Your task to perform on an android device: toggle sleep mode Image 0: 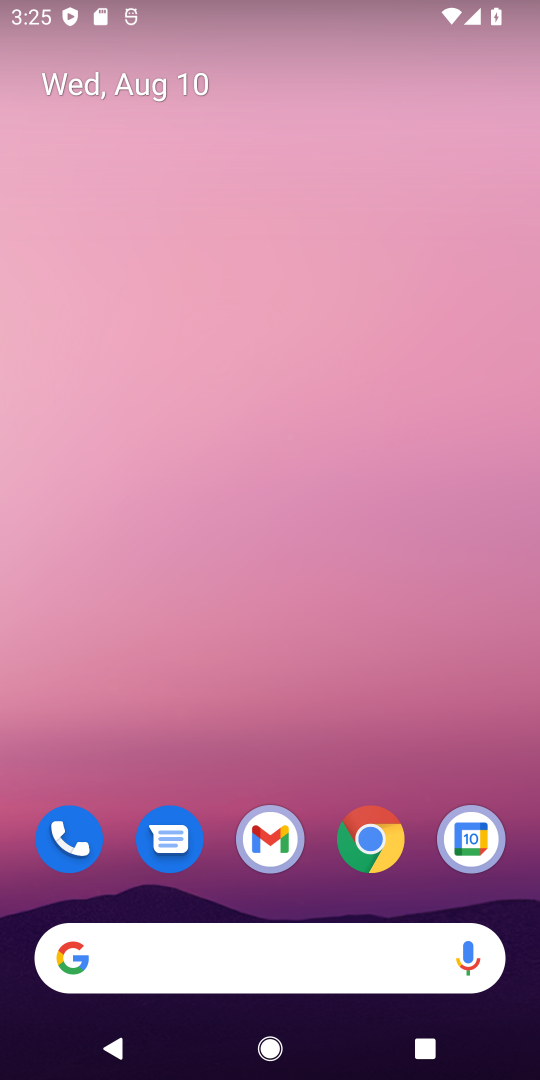
Step 0: drag from (302, 740) to (332, 0)
Your task to perform on an android device: toggle sleep mode Image 1: 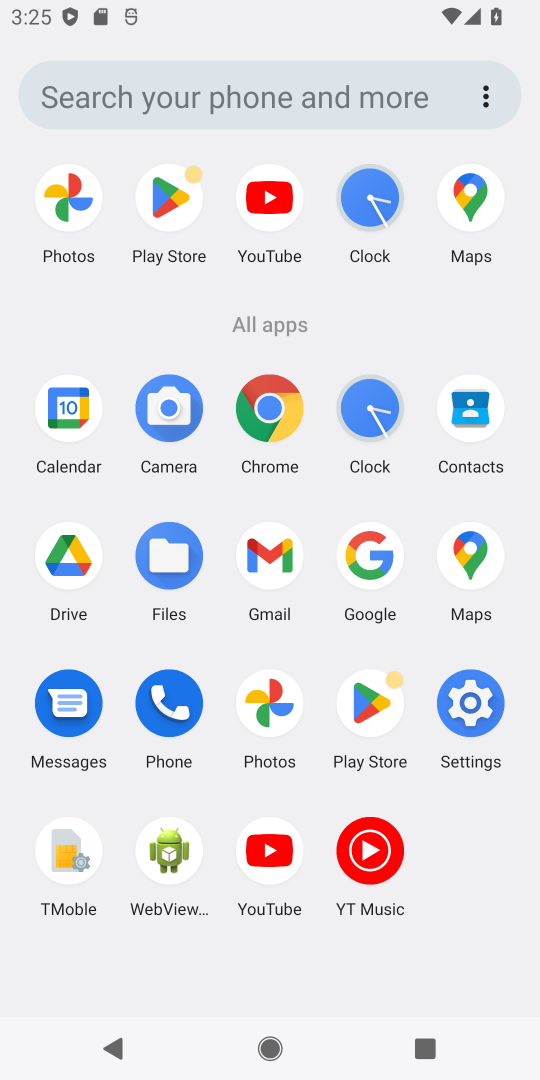
Step 1: click (466, 702)
Your task to perform on an android device: toggle sleep mode Image 2: 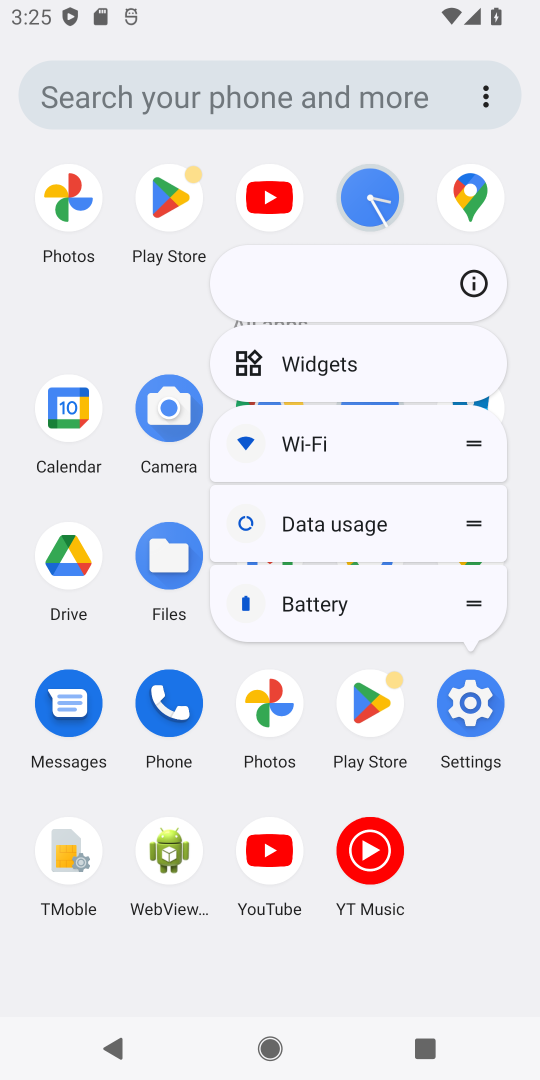
Step 2: click (466, 702)
Your task to perform on an android device: toggle sleep mode Image 3: 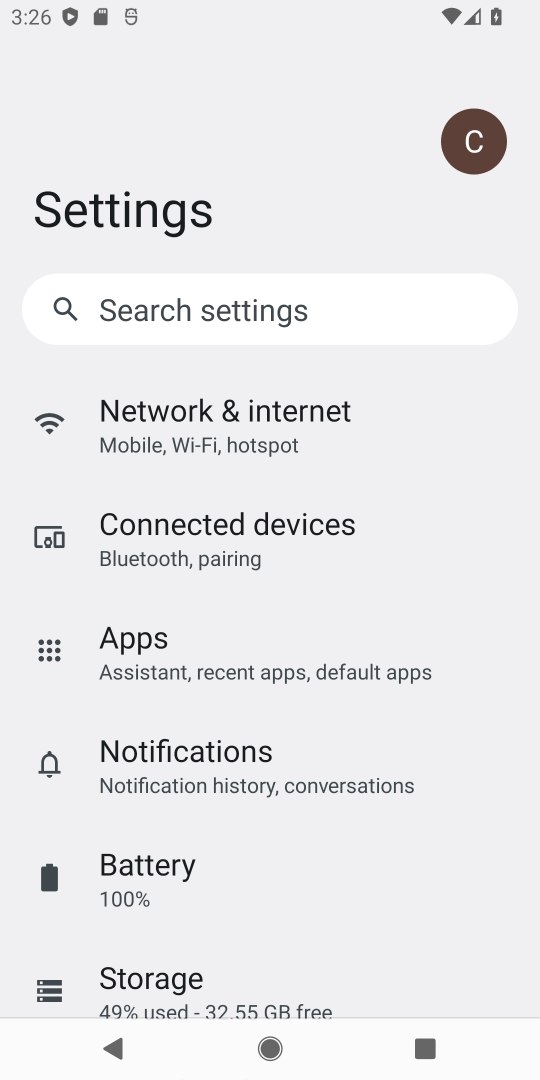
Step 3: drag from (269, 937) to (275, 406)
Your task to perform on an android device: toggle sleep mode Image 4: 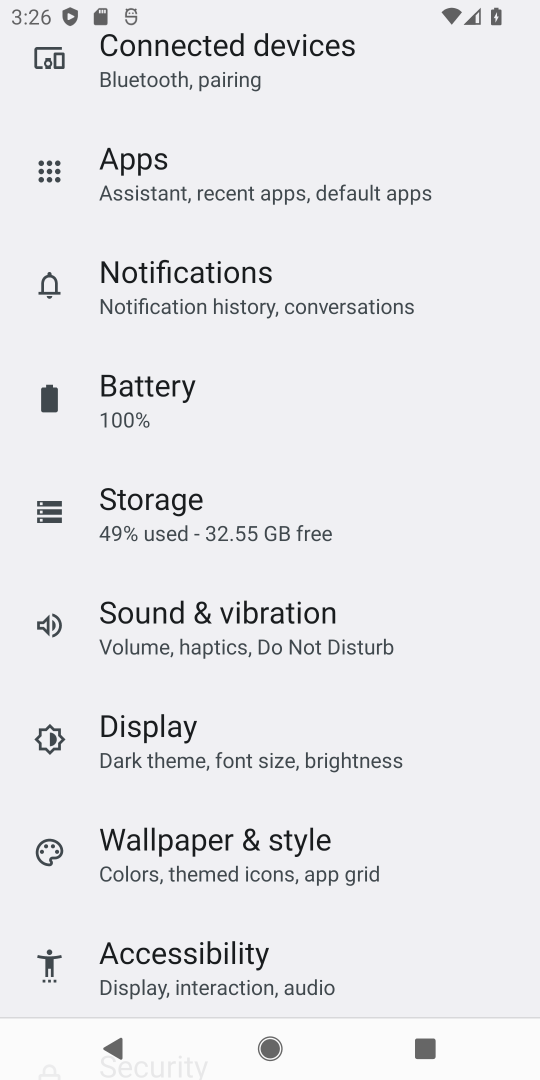
Step 4: drag from (265, 448) to (262, 904)
Your task to perform on an android device: toggle sleep mode Image 5: 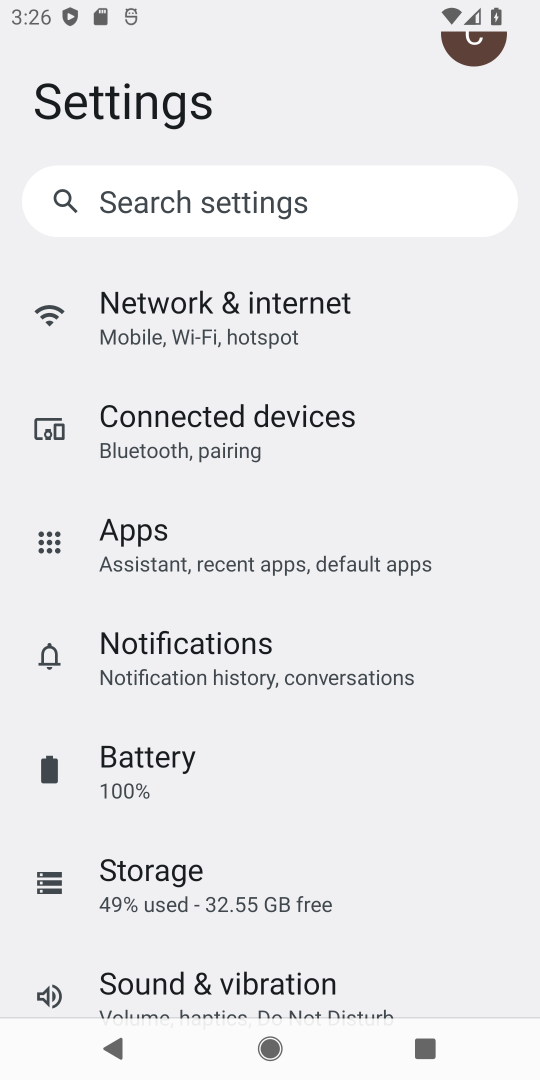
Step 5: click (312, 201)
Your task to perform on an android device: toggle sleep mode Image 6: 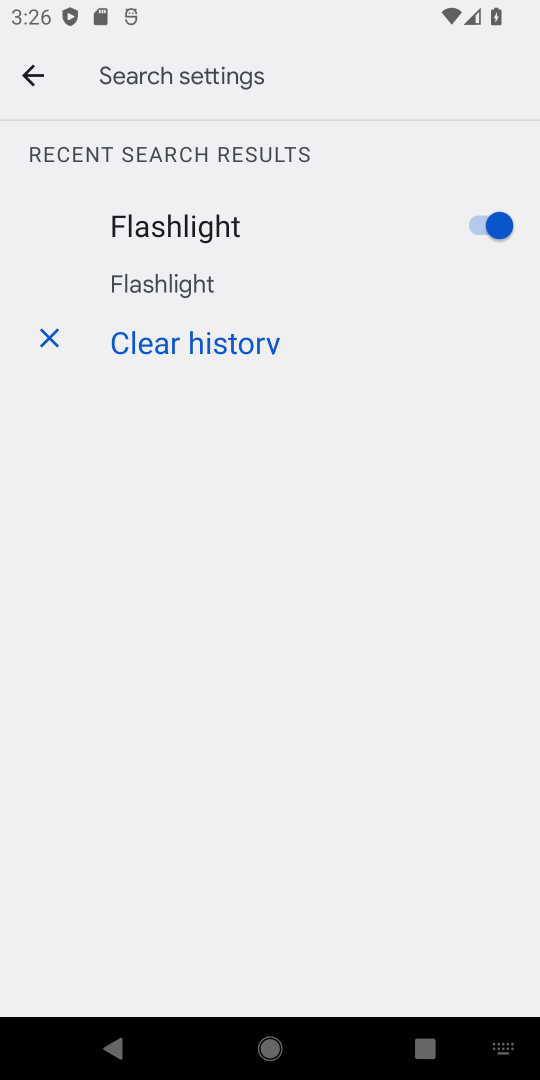
Step 6: type "sleep mode"
Your task to perform on an android device: toggle sleep mode Image 7: 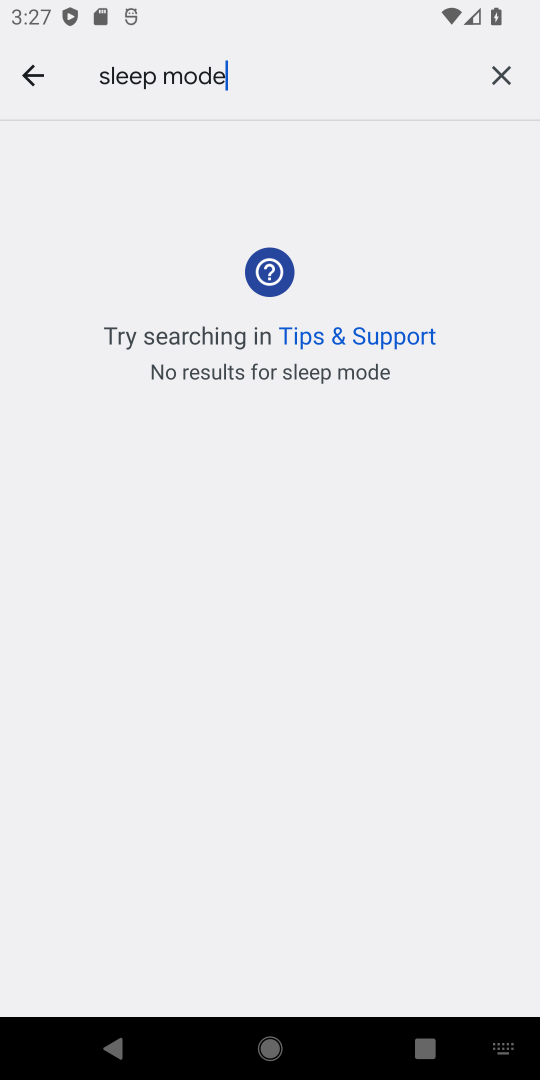
Step 7: click (499, 70)
Your task to perform on an android device: toggle sleep mode Image 8: 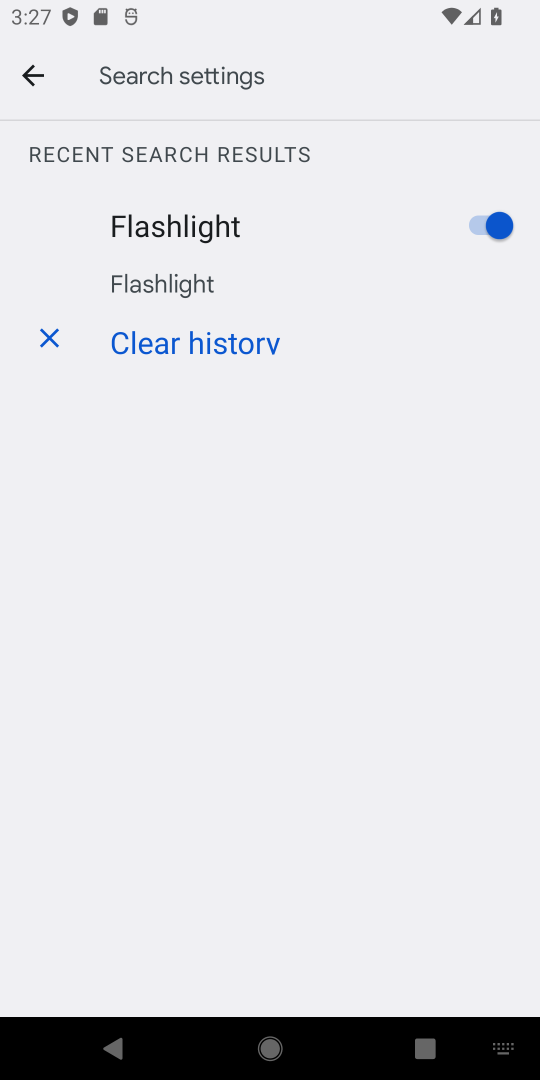
Step 8: click (40, 74)
Your task to perform on an android device: toggle sleep mode Image 9: 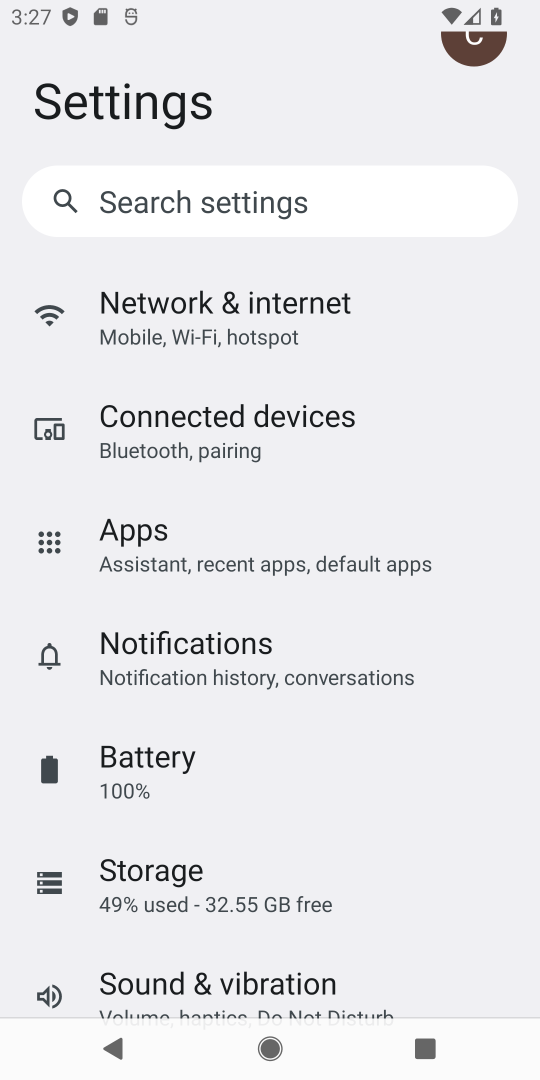
Step 9: drag from (297, 813) to (311, 196)
Your task to perform on an android device: toggle sleep mode Image 10: 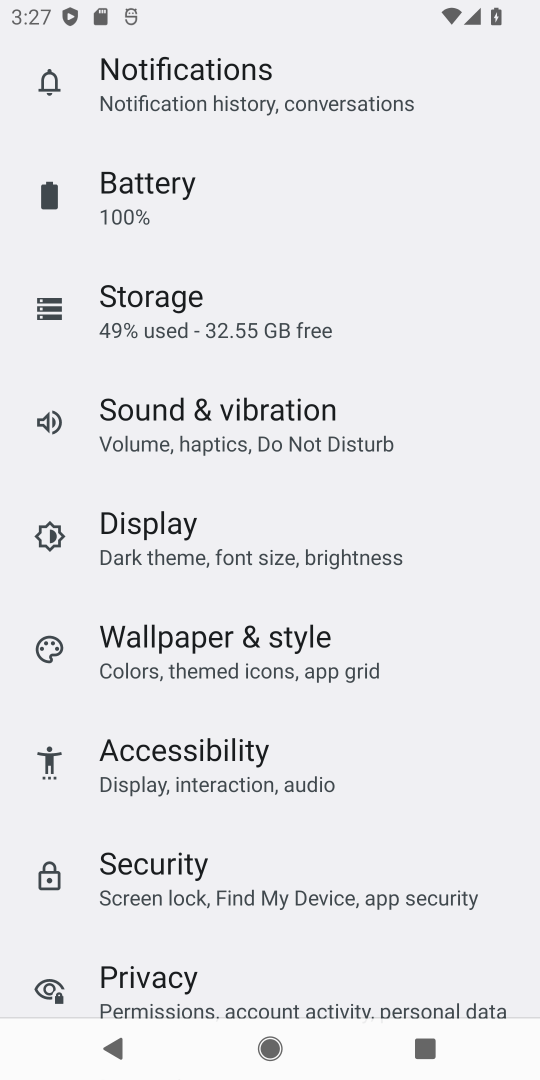
Step 10: click (324, 423)
Your task to perform on an android device: toggle sleep mode Image 11: 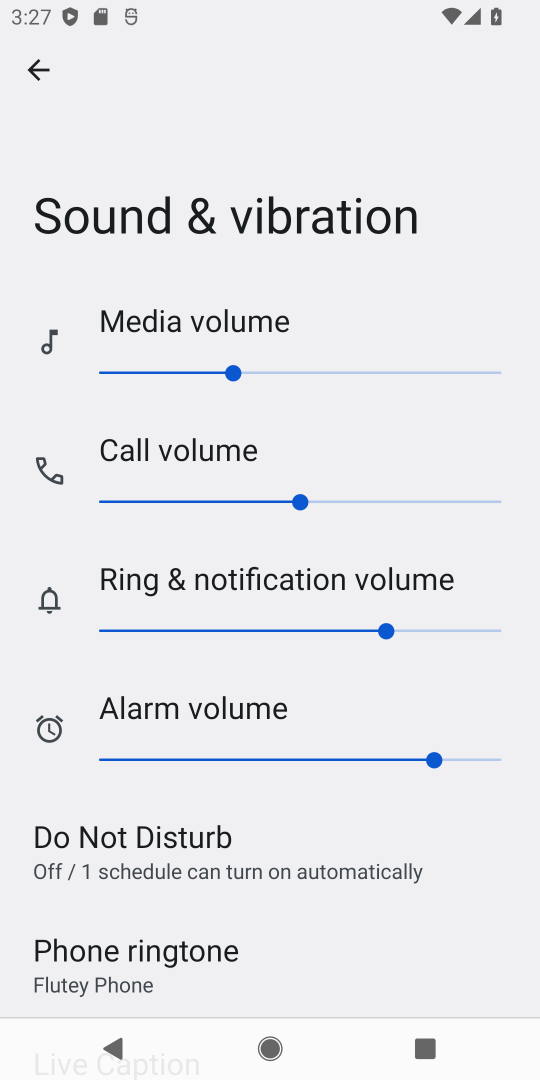
Step 11: task complete